Your task to perform on an android device: turn off picture-in-picture Image 0: 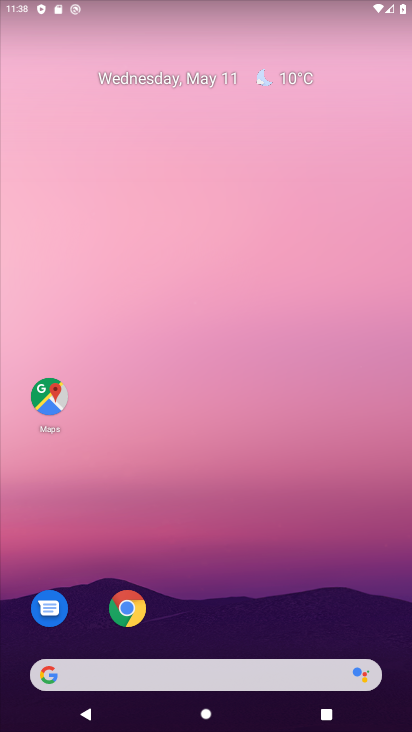
Step 0: click (126, 607)
Your task to perform on an android device: turn off picture-in-picture Image 1: 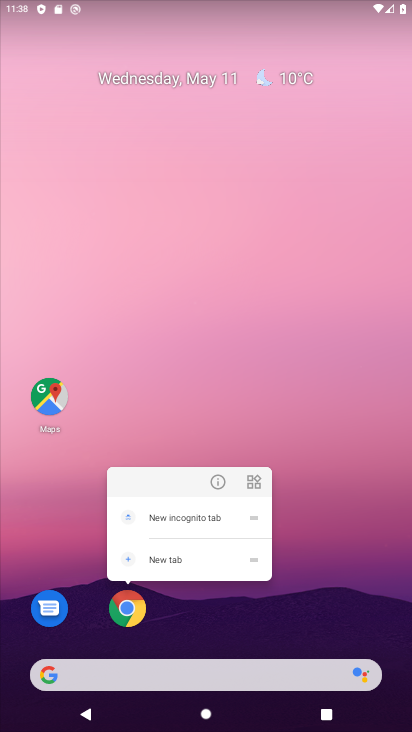
Step 1: click (219, 480)
Your task to perform on an android device: turn off picture-in-picture Image 2: 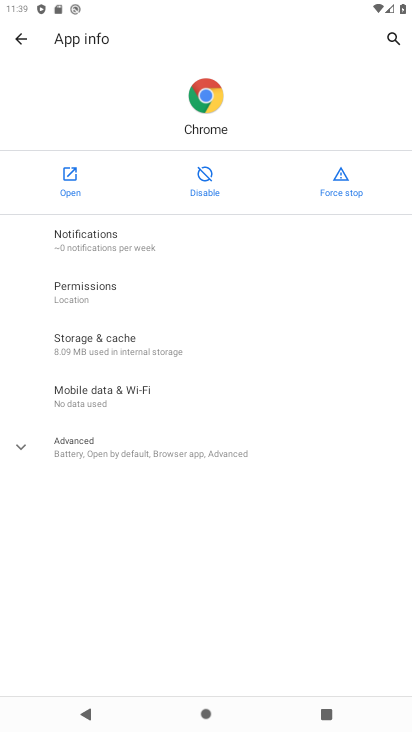
Step 2: click (91, 449)
Your task to perform on an android device: turn off picture-in-picture Image 3: 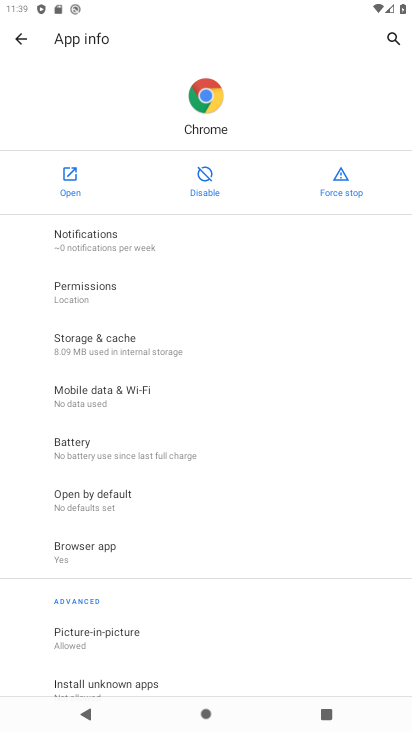
Step 3: click (110, 631)
Your task to perform on an android device: turn off picture-in-picture Image 4: 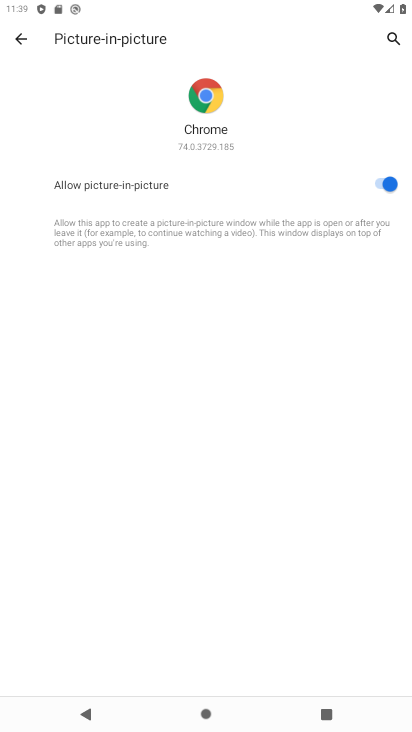
Step 4: click (387, 182)
Your task to perform on an android device: turn off picture-in-picture Image 5: 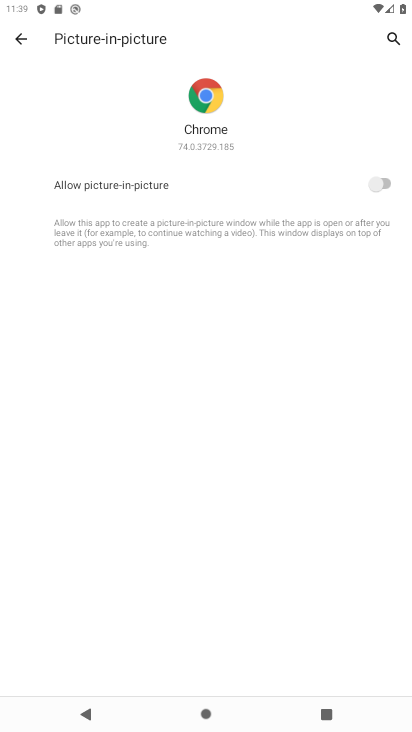
Step 5: task complete